Your task to perform on an android device: Show me recent news Image 0: 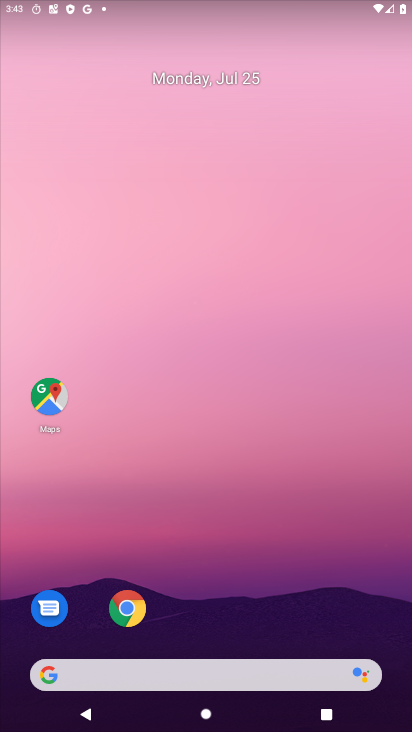
Step 0: drag from (11, 303) to (377, 300)
Your task to perform on an android device: Show me recent news Image 1: 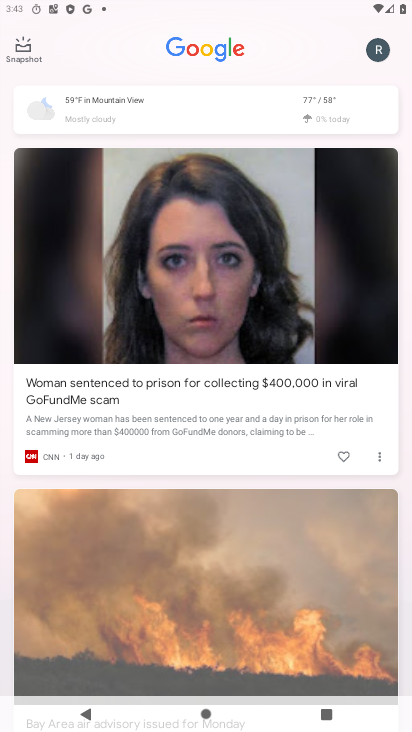
Step 1: task complete